Your task to perform on an android device: Search for macbook pro 15 inch on costco.com, select the first entry, and add it to the cart. Image 0: 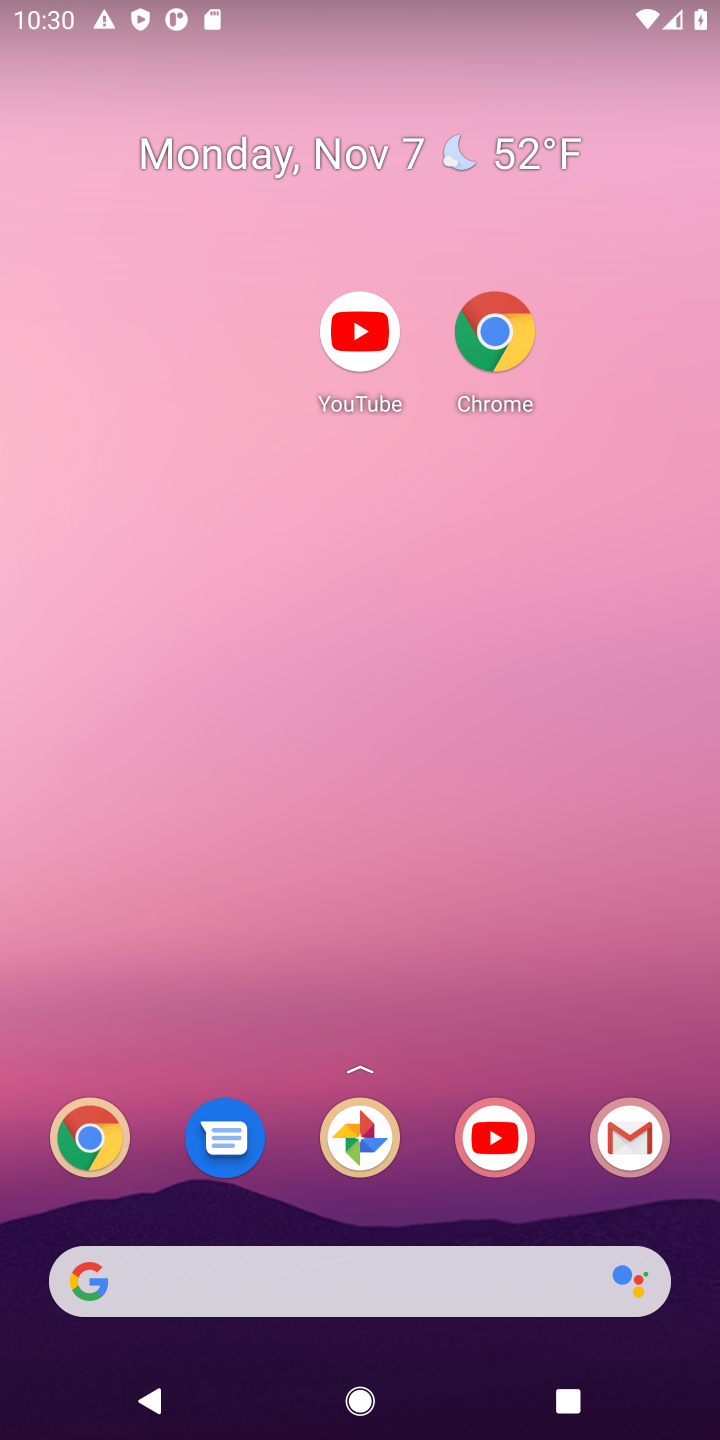
Step 0: drag from (391, 550) to (395, 212)
Your task to perform on an android device: Search for macbook pro 15 inch on costco.com, select the first entry, and add it to the cart. Image 1: 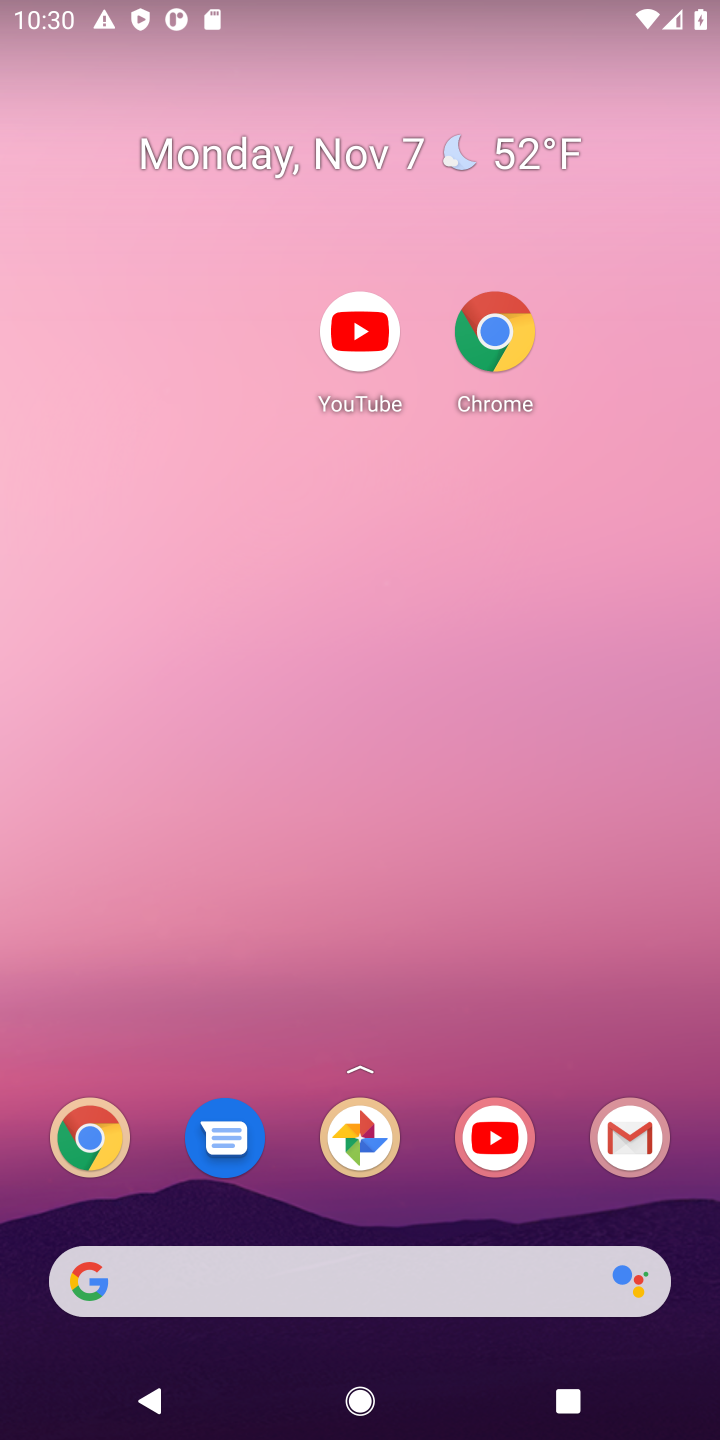
Step 1: drag from (271, 1232) to (226, 158)
Your task to perform on an android device: Search for macbook pro 15 inch on costco.com, select the first entry, and add it to the cart. Image 2: 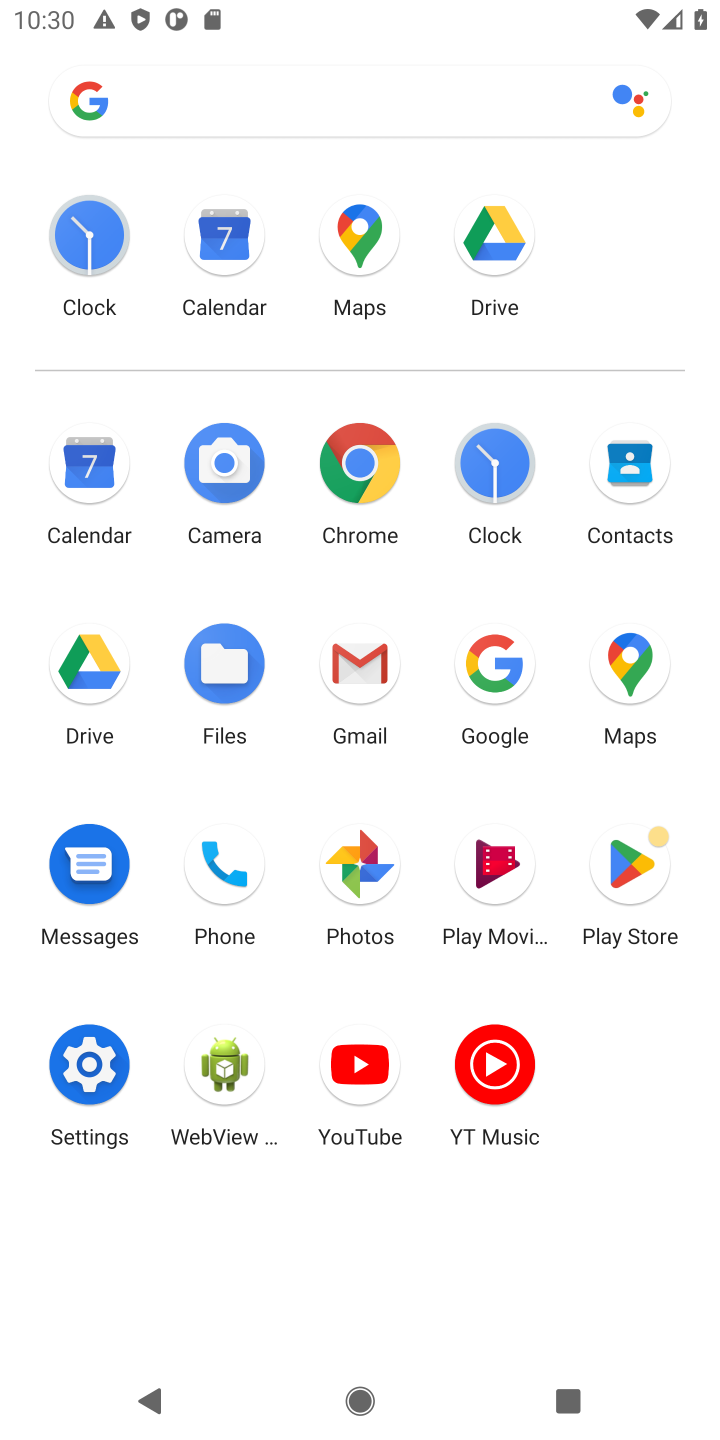
Step 2: click (364, 467)
Your task to perform on an android device: Search for macbook pro 15 inch on costco.com, select the first entry, and add it to the cart. Image 3: 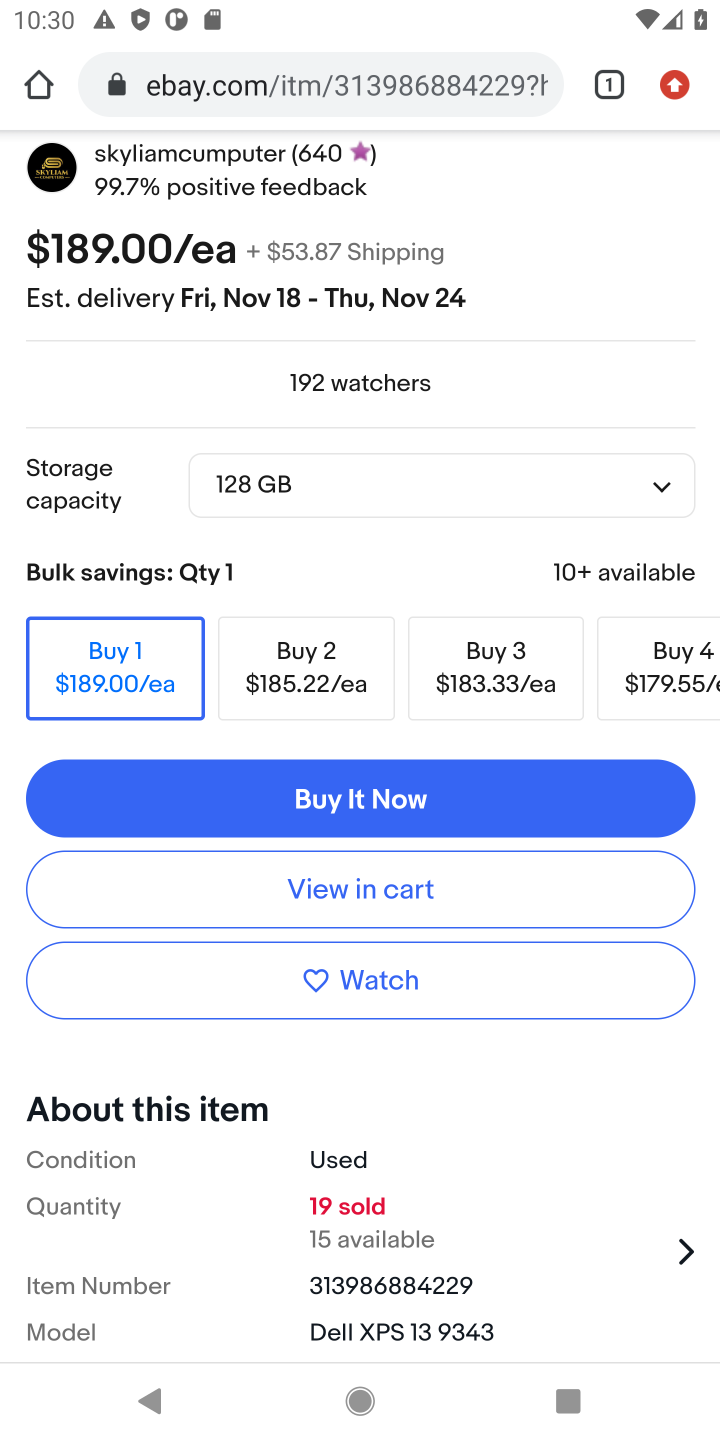
Step 3: click (449, 80)
Your task to perform on an android device: Search for macbook pro 15 inch on costco.com, select the first entry, and add it to the cart. Image 4: 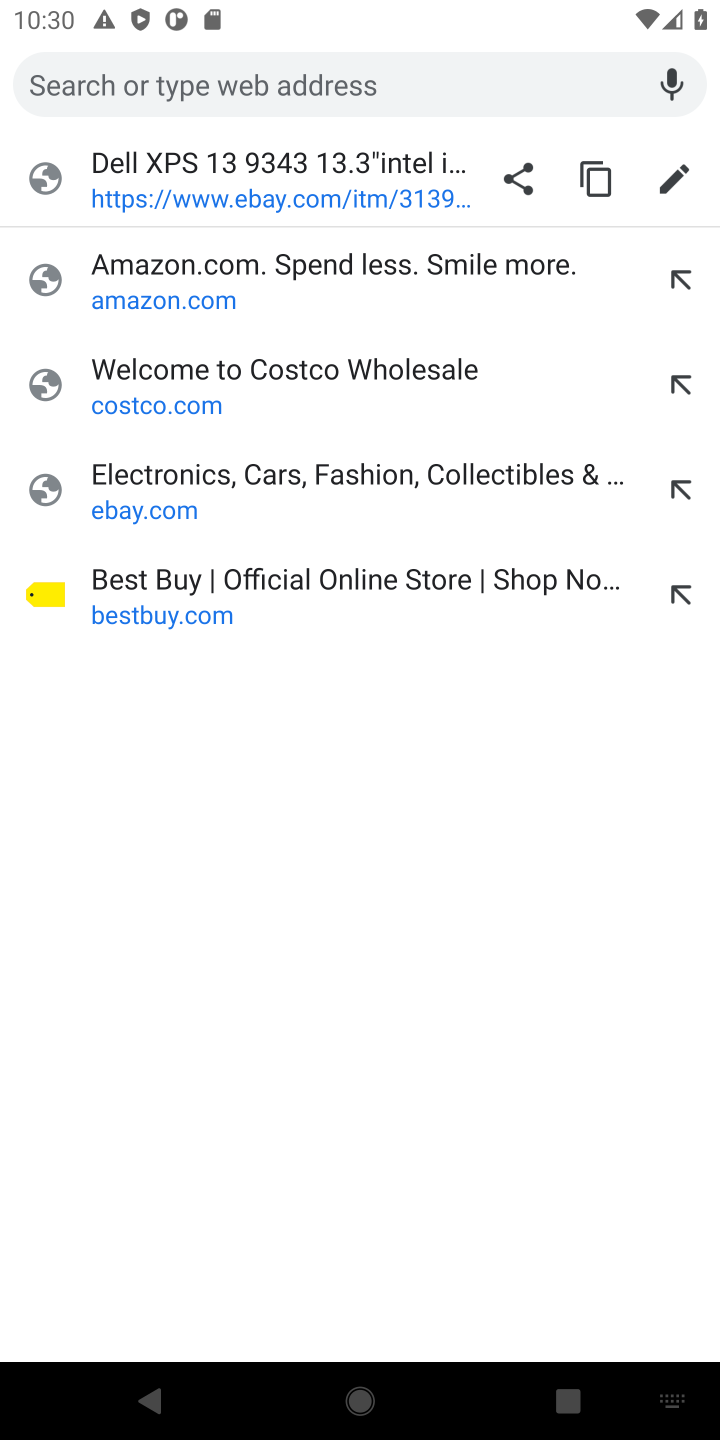
Step 4: type "costco.com"
Your task to perform on an android device: Search for macbook pro 15 inch on costco.com, select the first entry, and add it to the cart. Image 5: 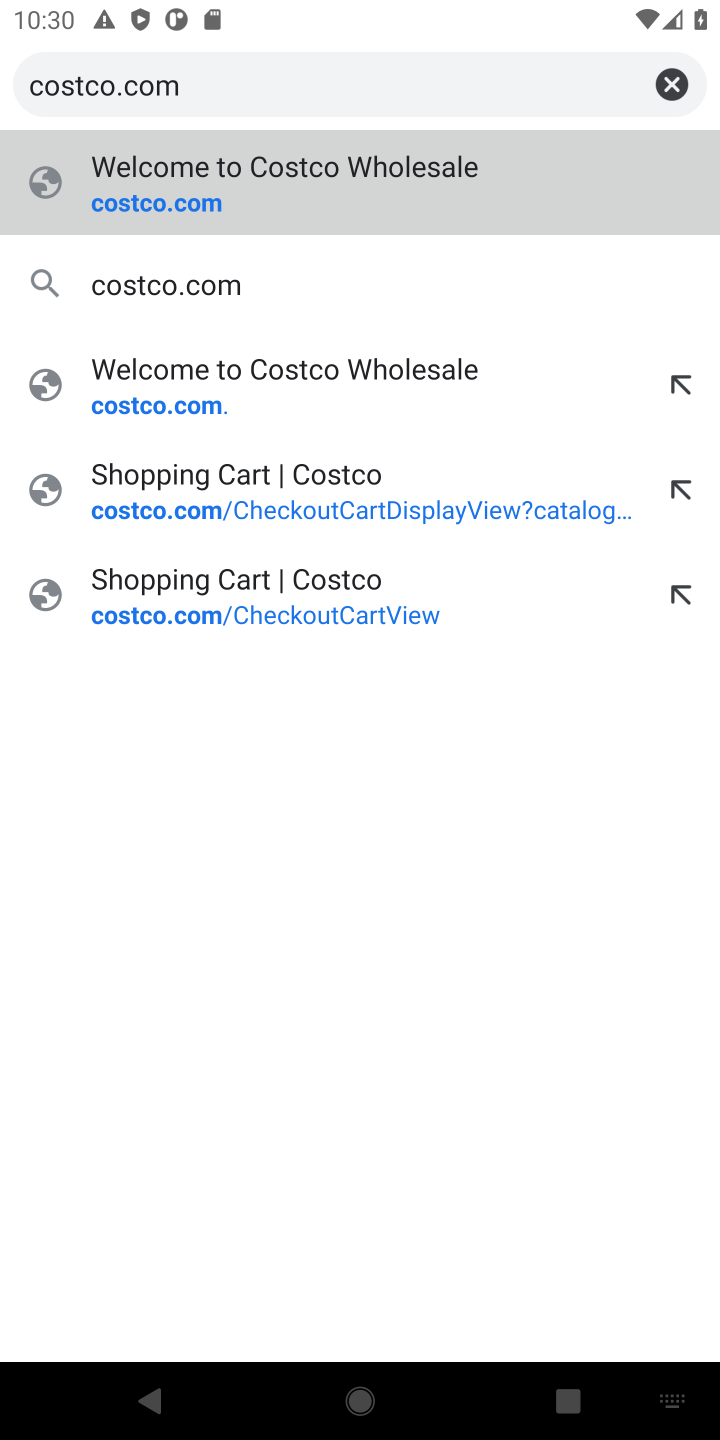
Step 5: press enter
Your task to perform on an android device: Search for macbook pro 15 inch on costco.com, select the first entry, and add it to the cart. Image 6: 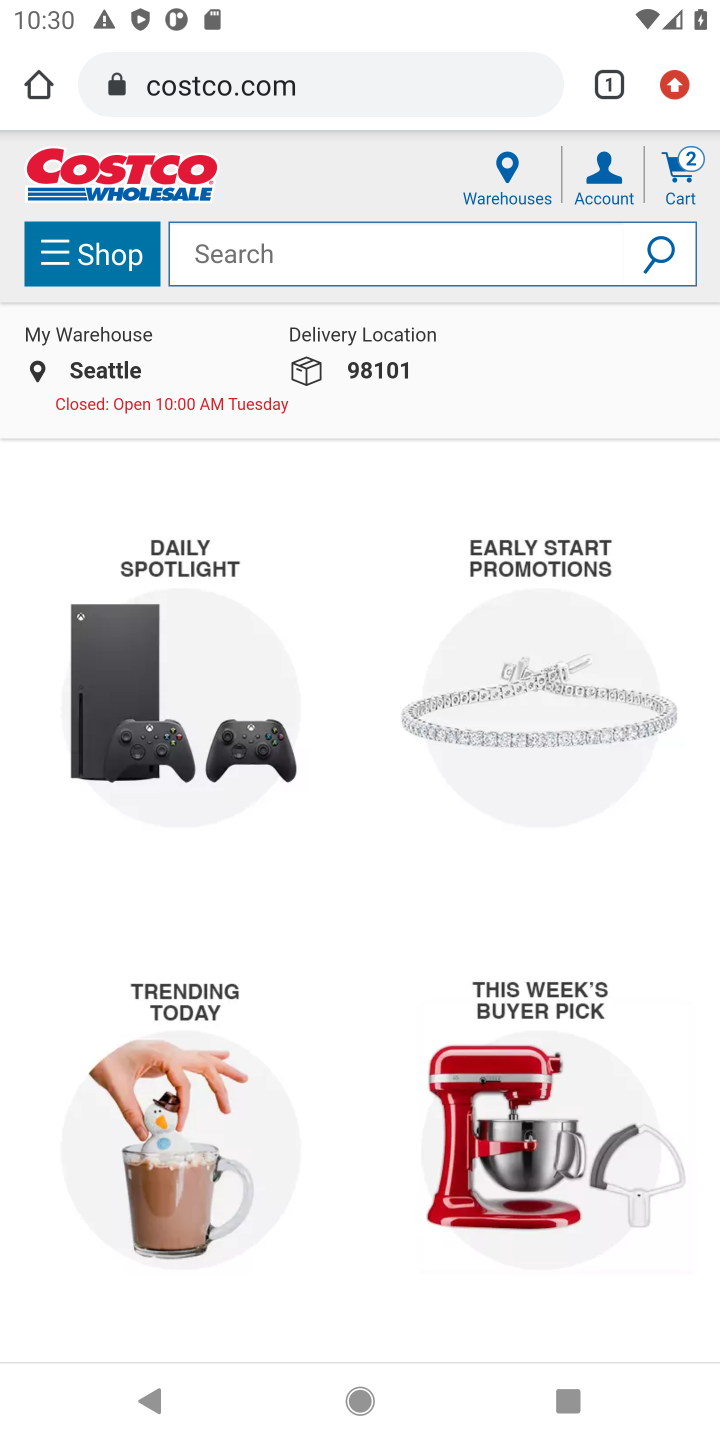
Step 6: click (461, 262)
Your task to perform on an android device: Search for macbook pro 15 inch on costco.com, select the first entry, and add it to the cart. Image 7: 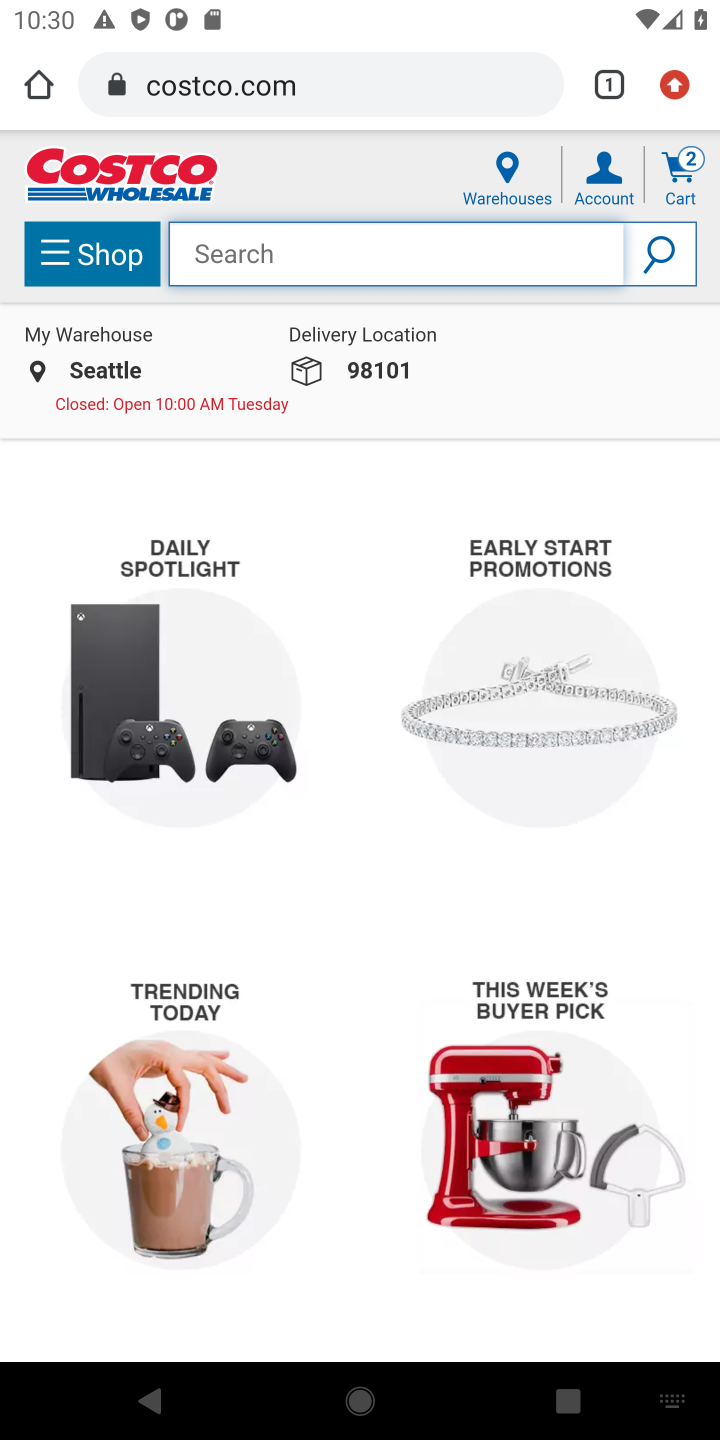
Step 7: type "macbook pro 15 inch"
Your task to perform on an android device: Search for macbook pro 15 inch on costco.com, select the first entry, and add it to the cart. Image 8: 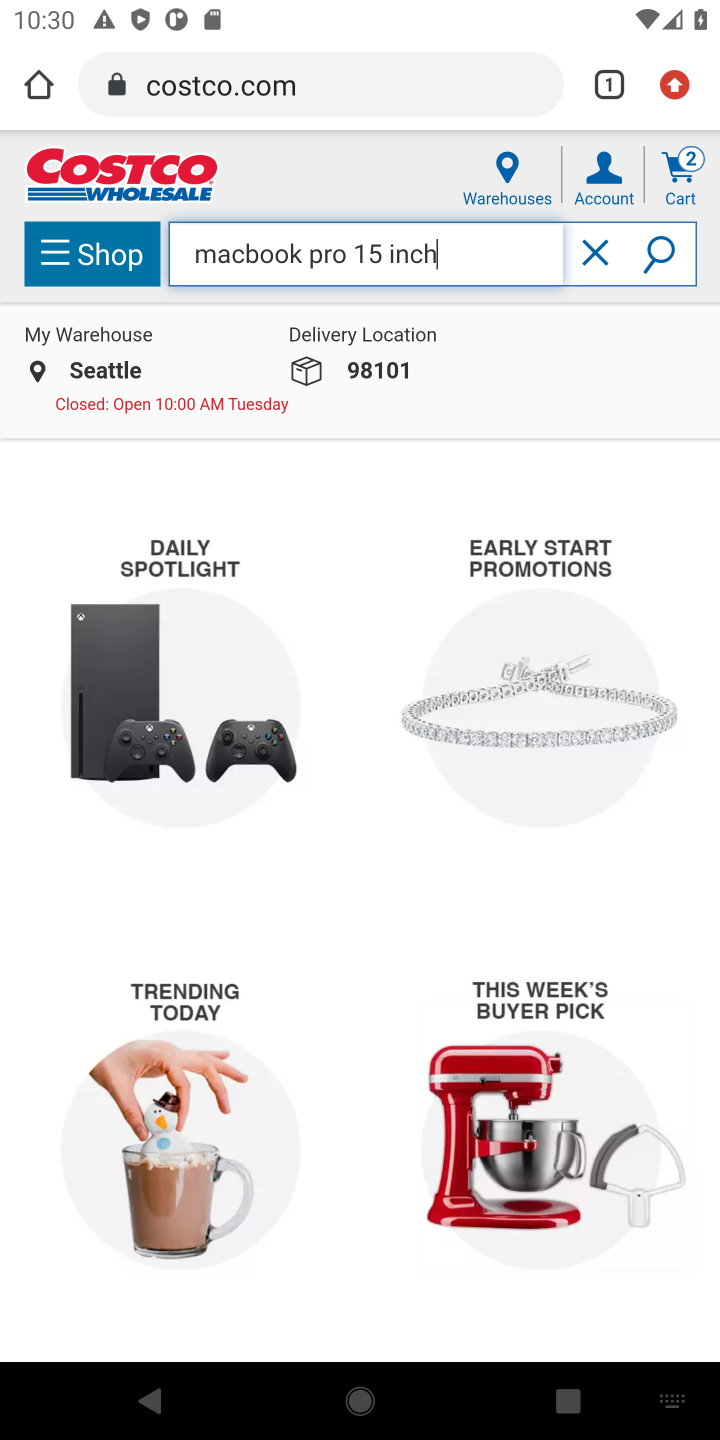
Step 8: press enter
Your task to perform on an android device: Search for macbook pro 15 inch on costco.com, select the first entry, and add it to the cart. Image 9: 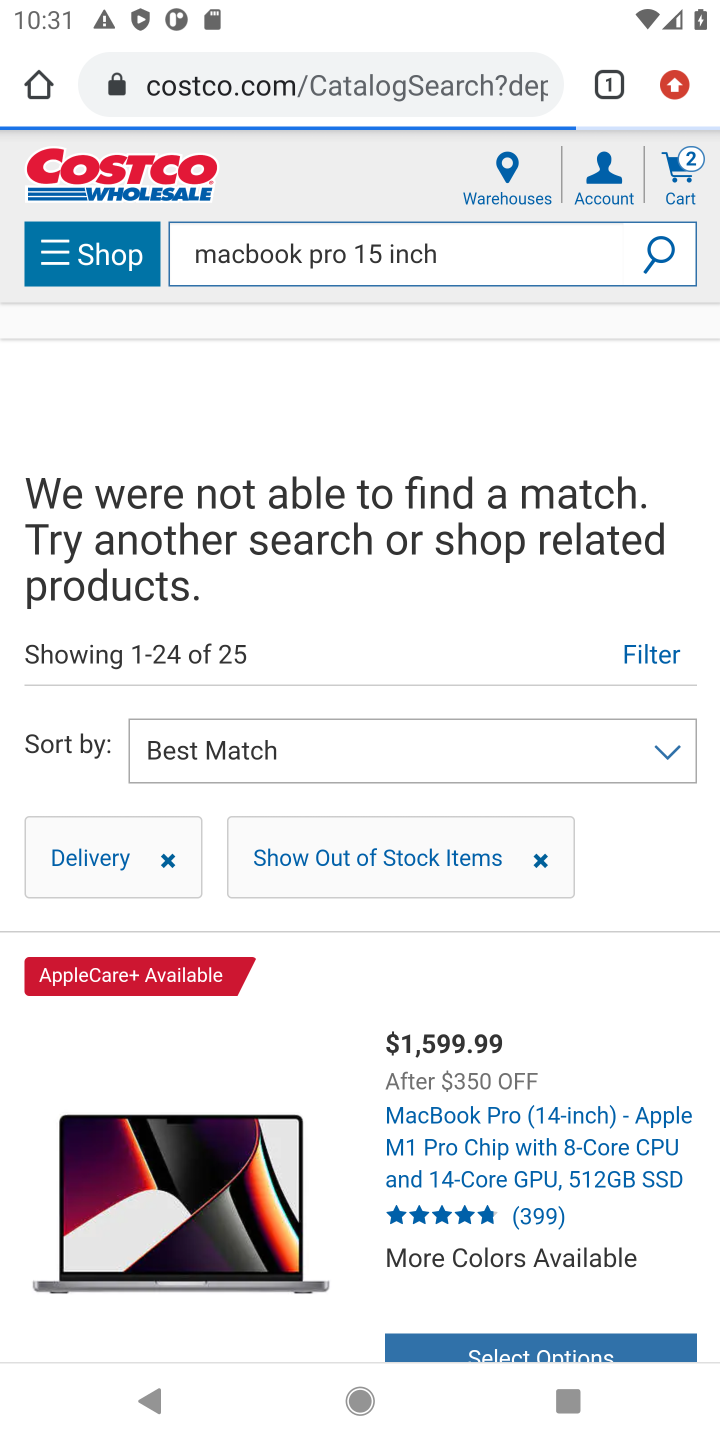
Step 9: task complete